Your task to perform on an android device: delete location history Image 0: 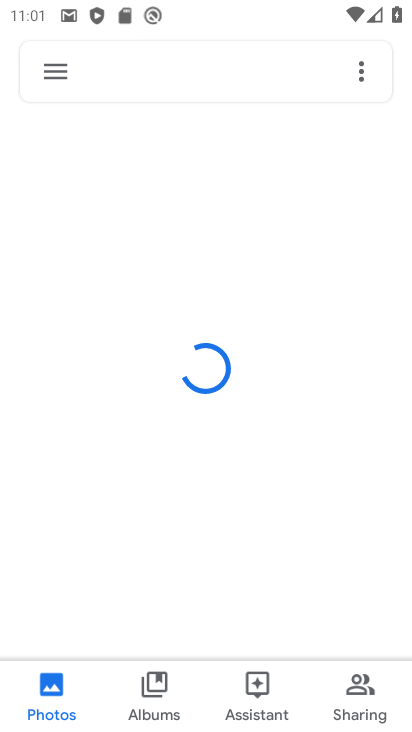
Step 0: press home button
Your task to perform on an android device: delete location history Image 1: 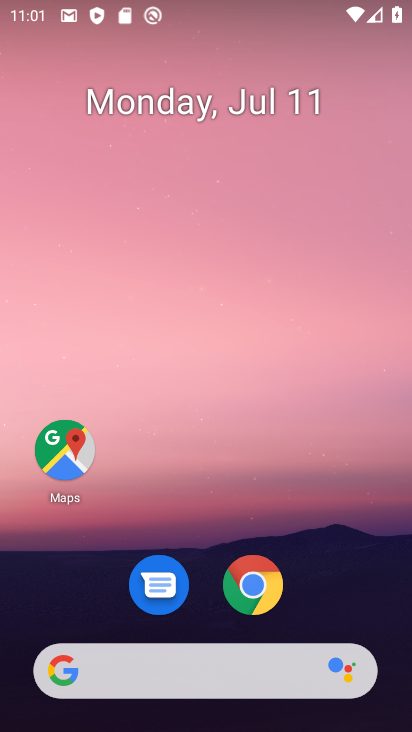
Step 1: drag from (264, 702) to (139, 169)
Your task to perform on an android device: delete location history Image 2: 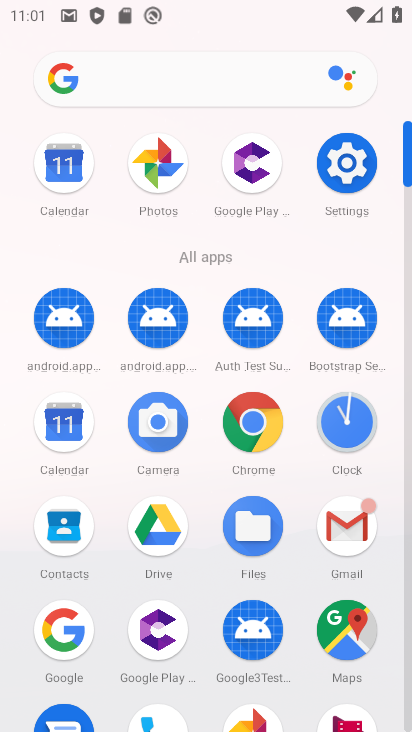
Step 2: drag from (336, 165) to (318, 565)
Your task to perform on an android device: delete location history Image 3: 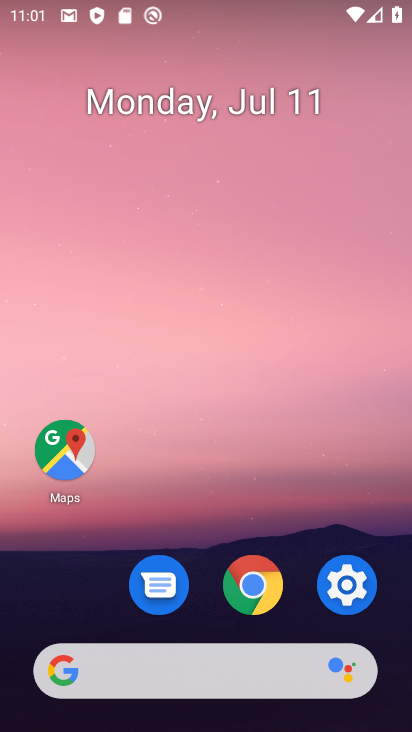
Step 3: click (352, 582)
Your task to perform on an android device: delete location history Image 4: 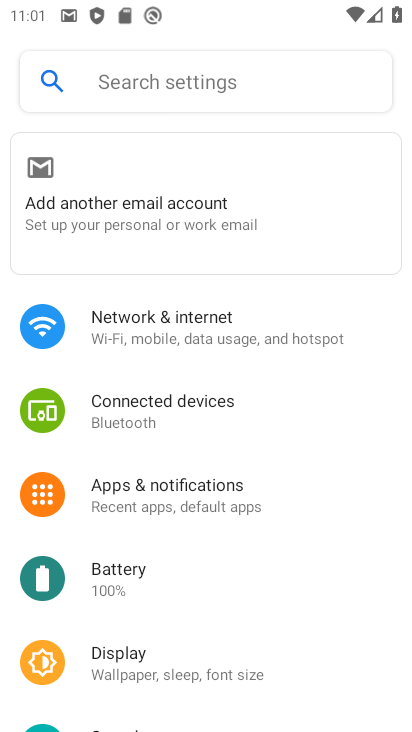
Step 4: click (111, 81)
Your task to perform on an android device: delete location history Image 5: 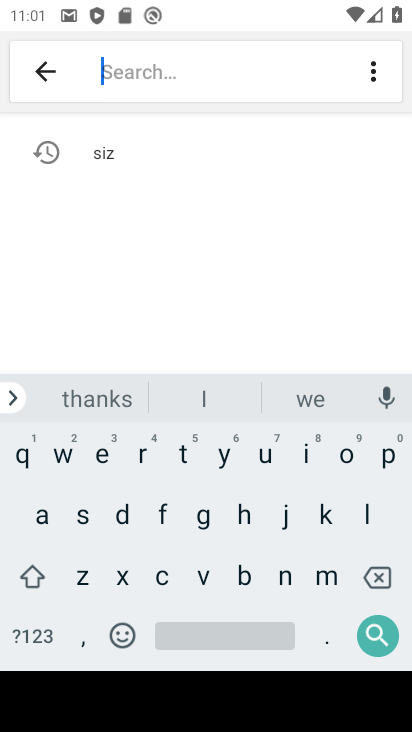
Step 5: click (364, 519)
Your task to perform on an android device: delete location history Image 6: 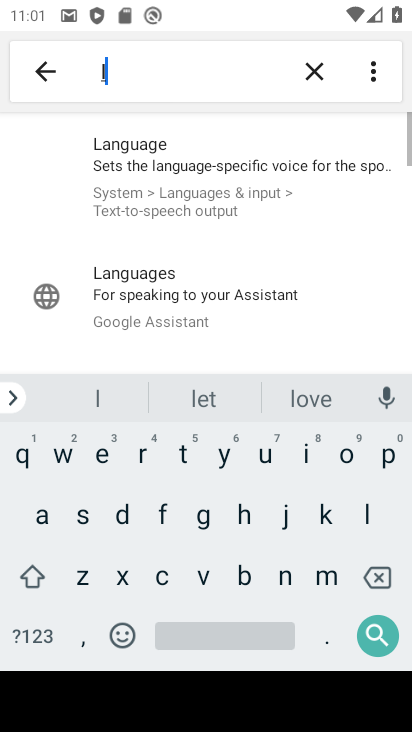
Step 6: click (336, 452)
Your task to perform on an android device: delete location history Image 7: 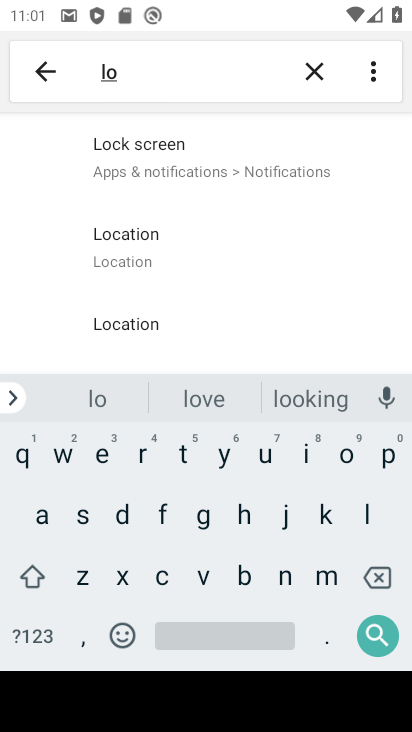
Step 7: click (138, 263)
Your task to perform on an android device: delete location history Image 8: 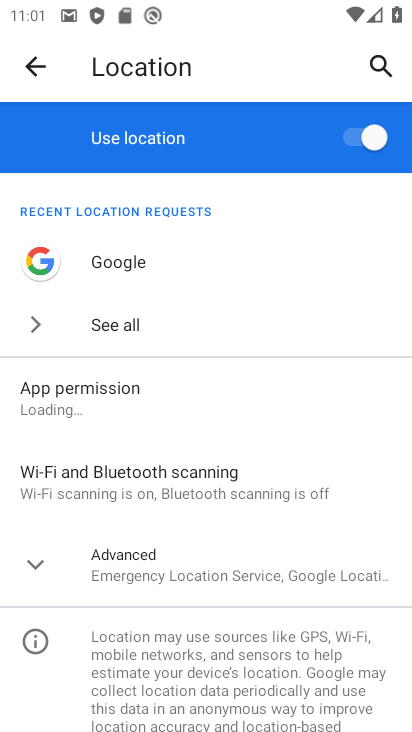
Step 8: click (68, 562)
Your task to perform on an android device: delete location history Image 9: 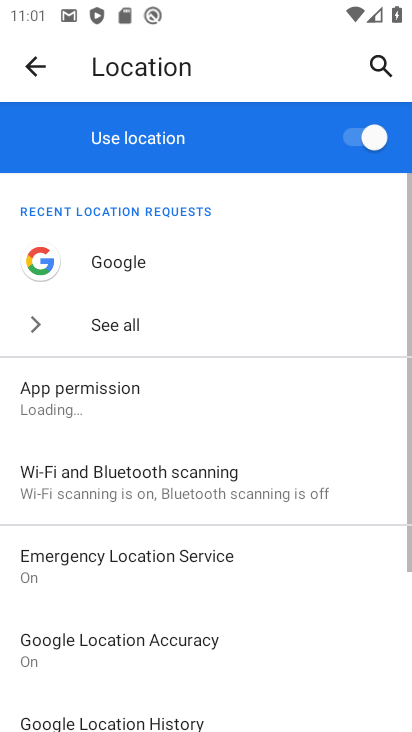
Step 9: drag from (68, 559) to (75, 358)
Your task to perform on an android device: delete location history Image 10: 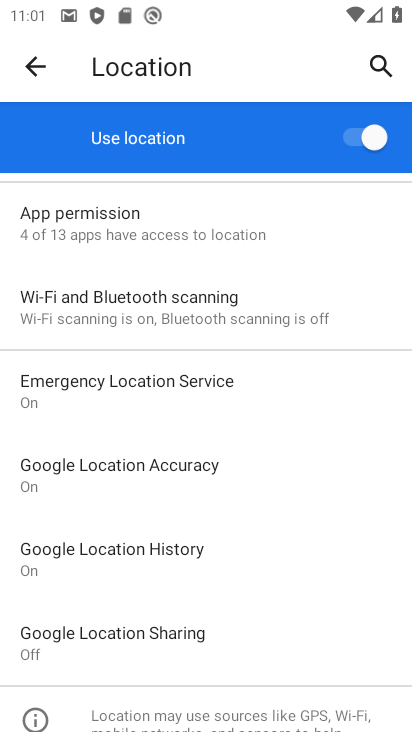
Step 10: click (148, 551)
Your task to perform on an android device: delete location history Image 11: 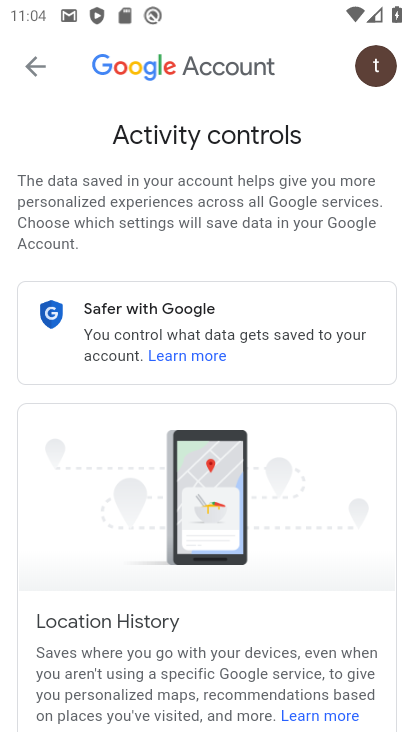
Step 11: task complete